Your task to perform on an android device: Open Youtube and go to the subscriptions tab Image 0: 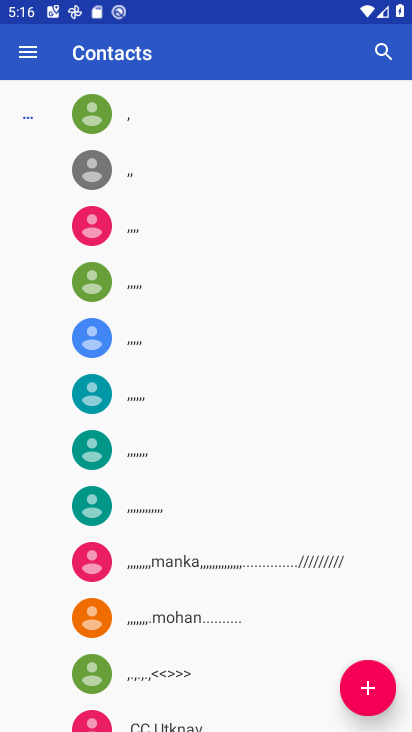
Step 0: press home button
Your task to perform on an android device: Open Youtube and go to the subscriptions tab Image 1: 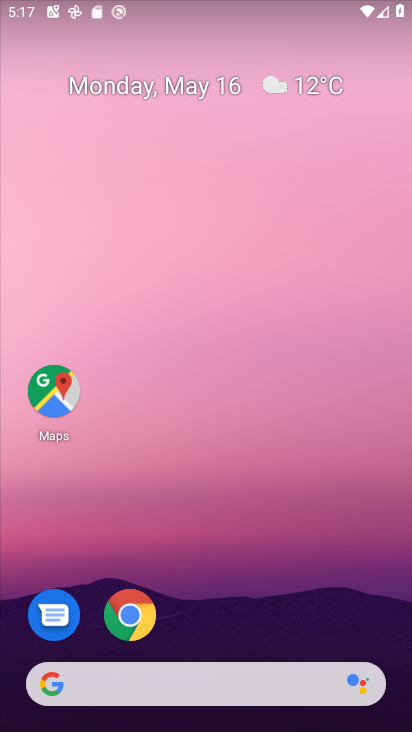
Step 1: drag from (194, 628) to (286, 99)
Your task to perform on an android device: Open Youtube and go to the subscriptions tab Image 2: 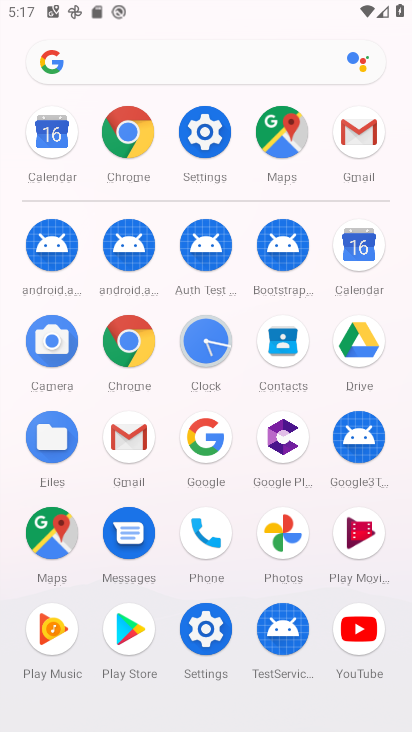
Step 2: click (356, 632)
Your task to perform on an android device: Open Youtube and go to the subscriptions tab Image 3: 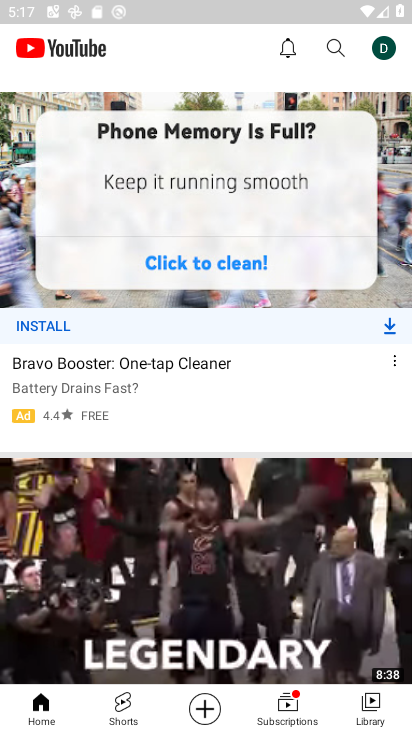
Step 3: click (284, 715)
Your task to perform on an android device: Open Youtube and go to the subscriptions tab Image 4: 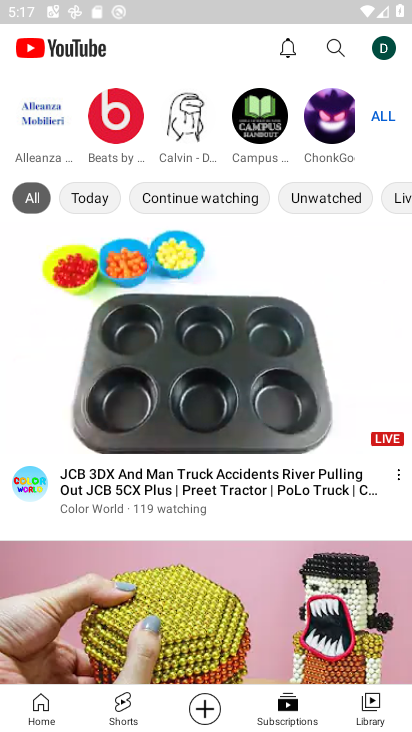
Step 4: task complete